Your task to perform on an android device: Do I have any events today? Image 0: 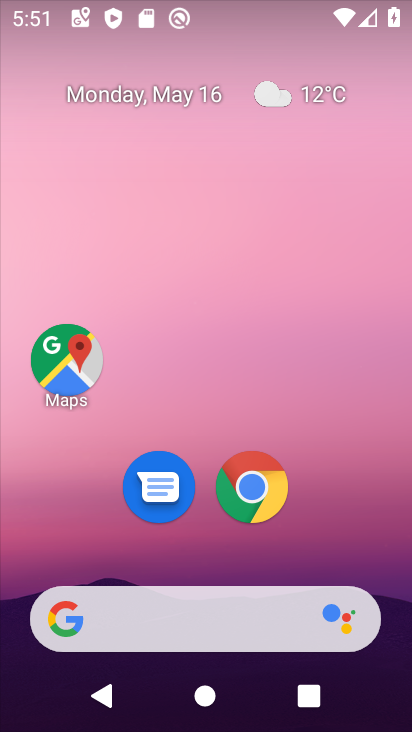
Step 0: drag from (356, 517) to (331, 93)
Your task to perform on an android device: Do I have any events today? Image 1: 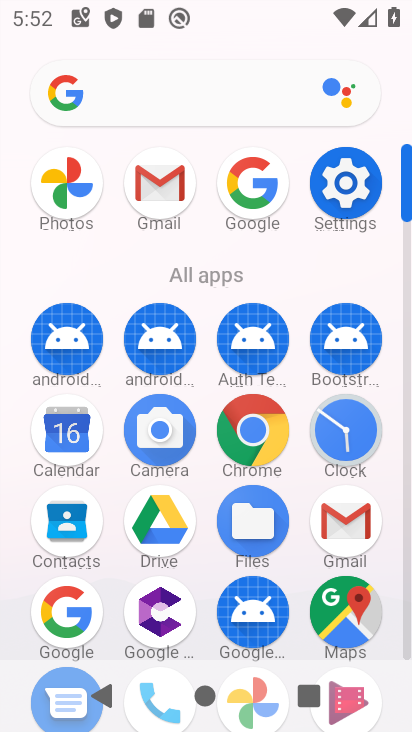
Step 1: drag from (295, 551) to (197, 391)
Your task to perform on an android device: Do I have any events today? Image 2: 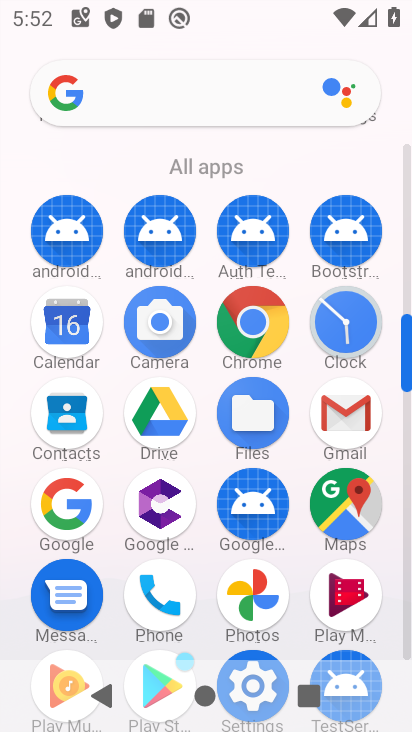
Step 2: click (77, 333)
Your task to perform on an android device: Do I have any events today? Image 3: 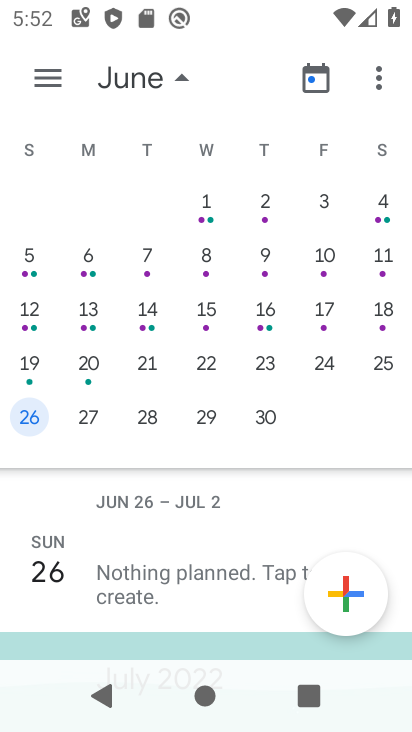
Step 3: drag from (26, 284) to (409, 228)
Your task to perform on an android device: Do I have any events today? Image 4: 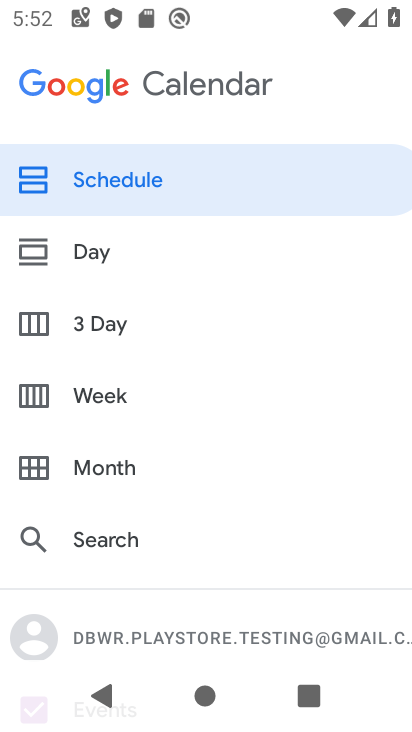
Step 4: drag from (354, 250) to (1, 294)
Your task to perform on an android device: Do I have any events today? Image 5: 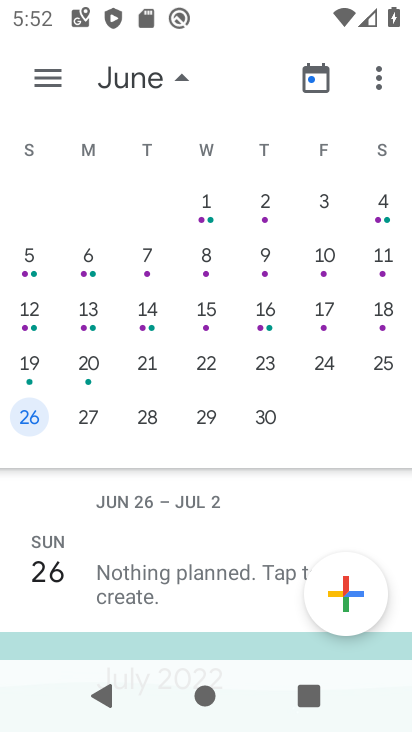
Step 5: drag from (69, 292) to (396, 249)
Your task to perform on an android device: Do I have any events today? Image 6: 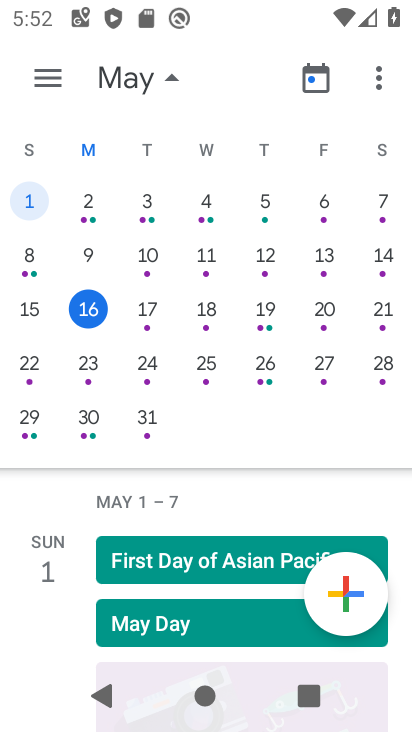
Step 6: click (92, 302)
Your task to perform on an android device: Do I have any events today? Image 7: 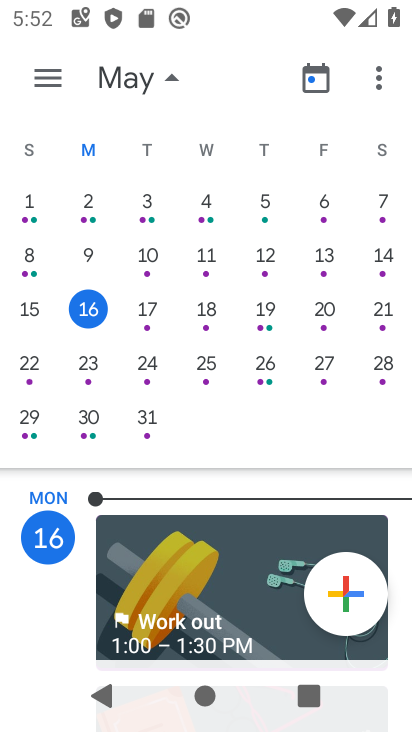
Step 7: task complete